Your task to perform on an android device: Open the calendar and show me this week's events? Image 0: 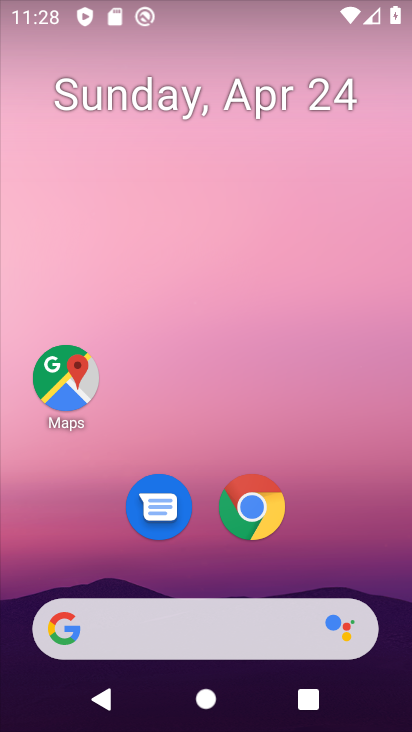
Step 0: drag from (337, 530) to (359, 34)
Your task to perform on an android device: Open the calendar and show me this week's events? Image 1: 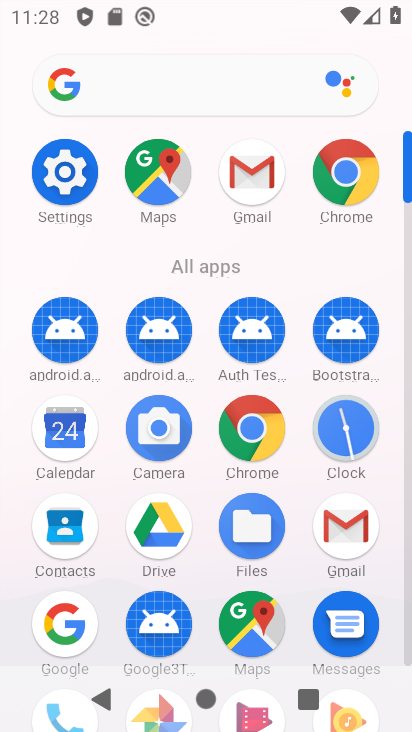
Step 1: click (73, 424)
Your task to perform on an android device: Open the calendar and show me this week's events? Image 2: 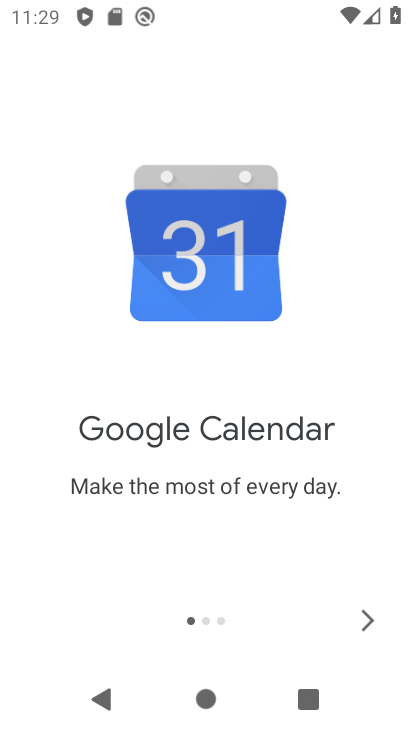
Step 2: click (363, 622)
Your task to perform on an android device: Open the calendar and show me this week's events? Image 3: 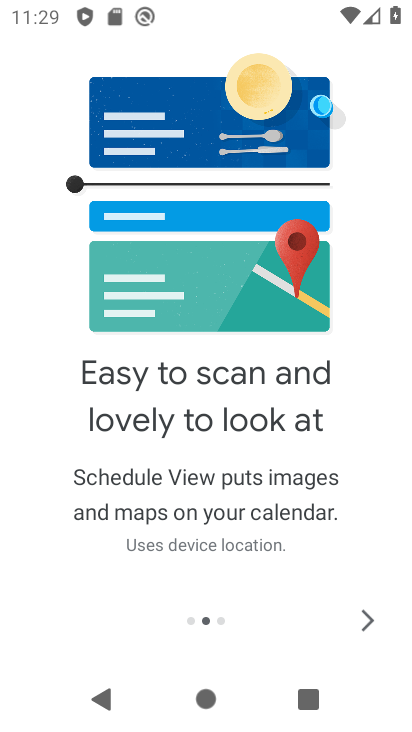
Step 3: click (369, 619)
Your task to perform on an android device: Open the calendar and show me this week's events? Image 4: 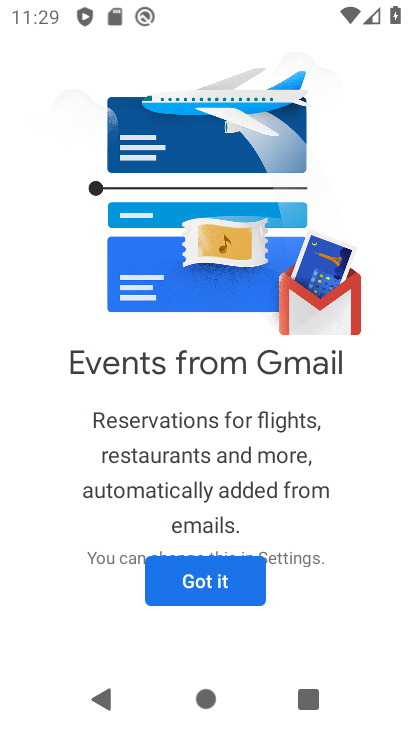
Step 4: click (252, 581)
Your task to perform on an android device: Open the calendar and show me this week's events? Image 5: 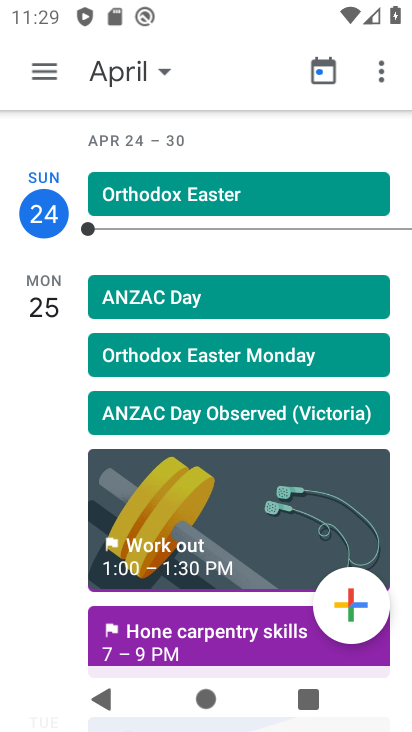
Step 5: click (32, 75)
Your task to perform on an android device: Open the calendar and show me this week's events? Image 6: 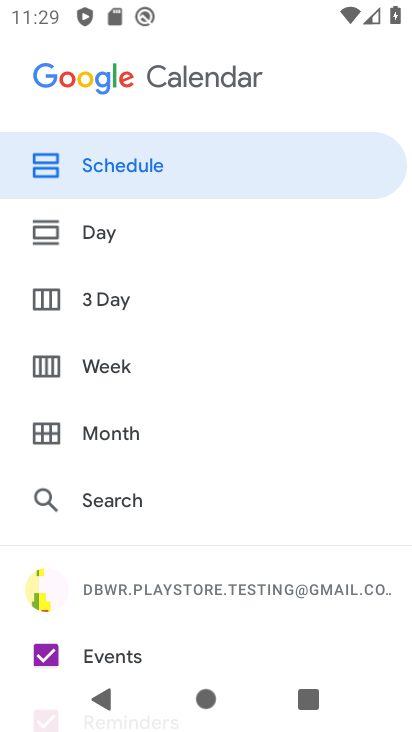
Step 6: click (106, 164)
Your task to perform on an android device: Open the calendar and show me this week's events? Image 7: 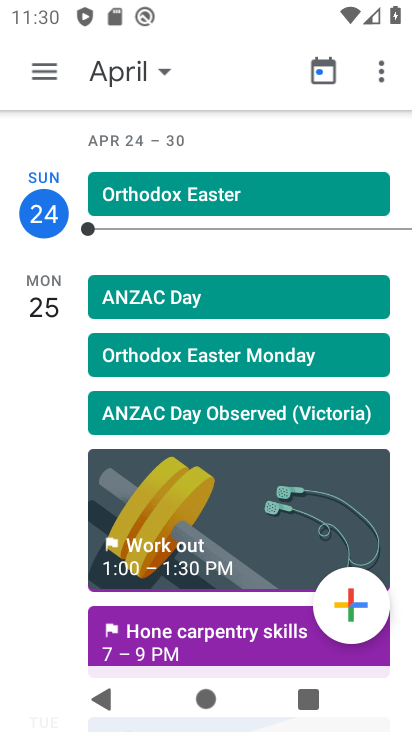
Step 7: task complete